Your task to perform on an android device: turn off data saver in the chrome app Image 0: 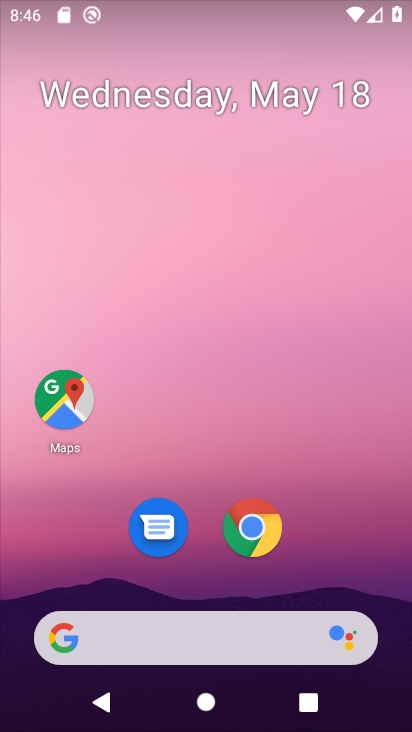
Step 0: drag from (311, 568) to (277, 164)
Your task to perform on an android device: turn off data saver in the chrome app Image 1: 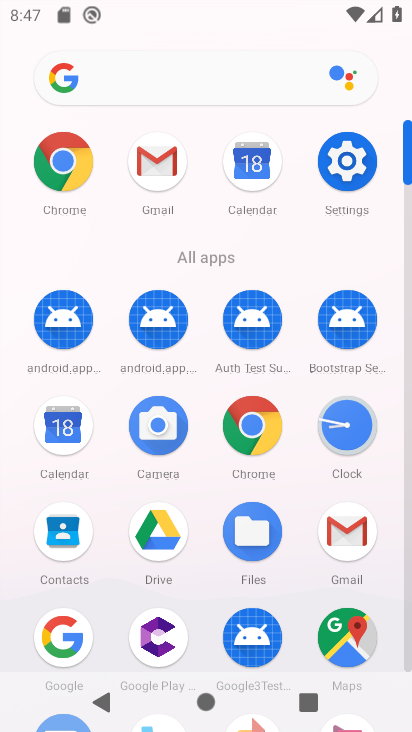
Step 1: click (55, 213)
Your task to perform on an android device: turn off data saver in the chrome app Image 2: 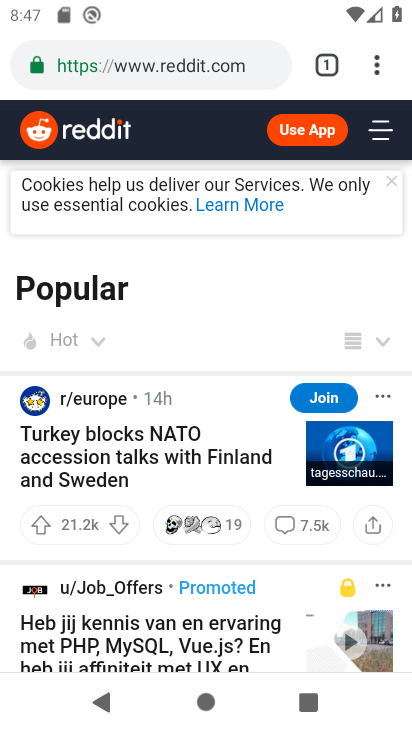
Step 2: click (374, 70)
Your task to perform on an android device: turn off data saver in the chrome app Image 3: 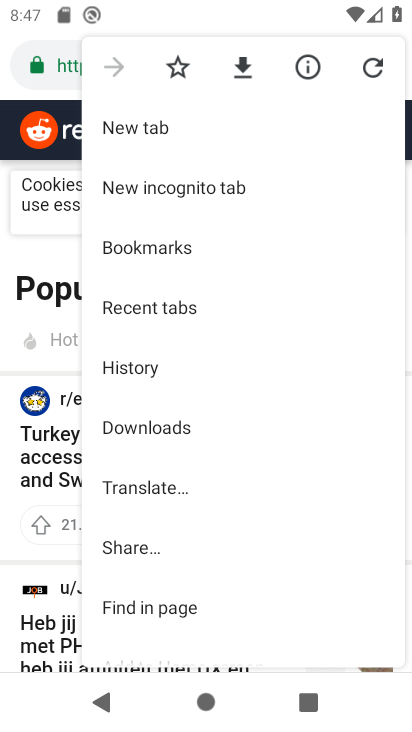
Step 3: drag from (162, 551) to (162, 436)
Your task to perform on an android device: turn off data saver in the chrome app Image 4: 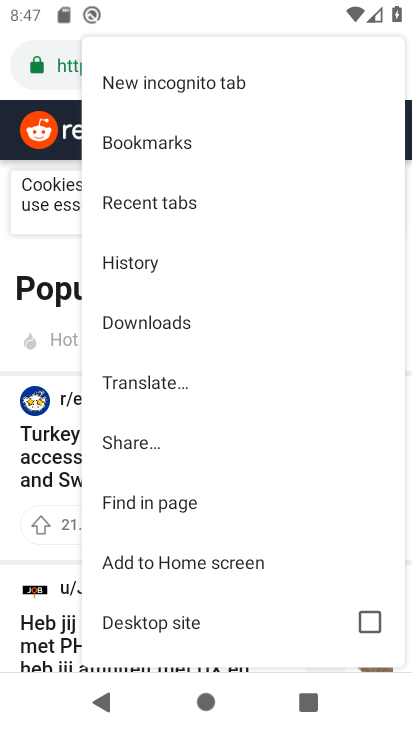
Step 4: drag from (167, 589) to (167, 479)
Your task to perform on an android device: turn off data saver in the chrome app Image 5: 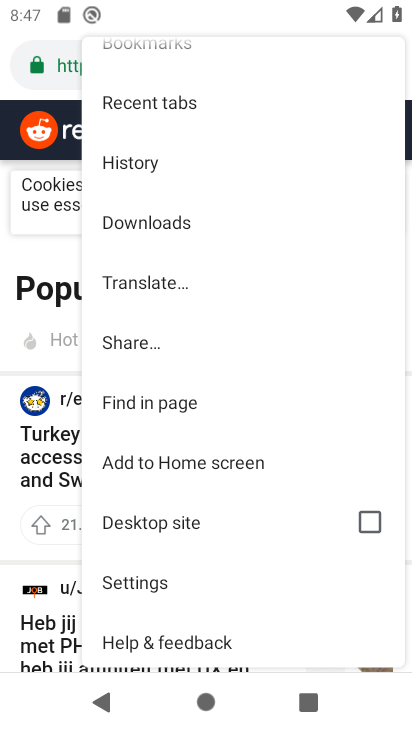
Step 5: click (154, 580)
Your task to perform on an android device: turn off data saver in the chrome app Image 6: 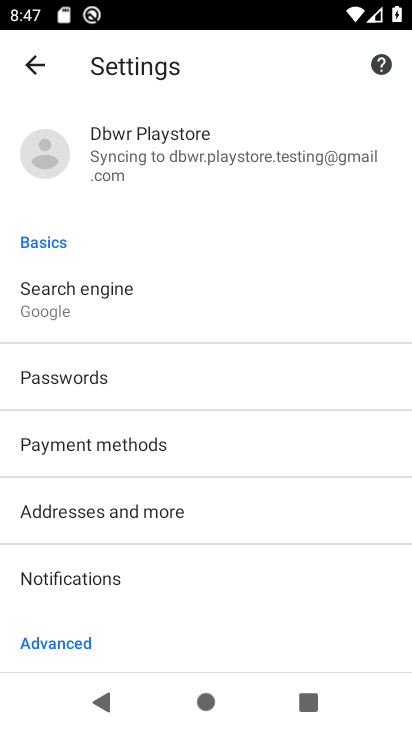
Step 6: drag from (157, 659) to (201, 280)
Your task to perform on an android device: turn off data saver in the chrome app Image 7: 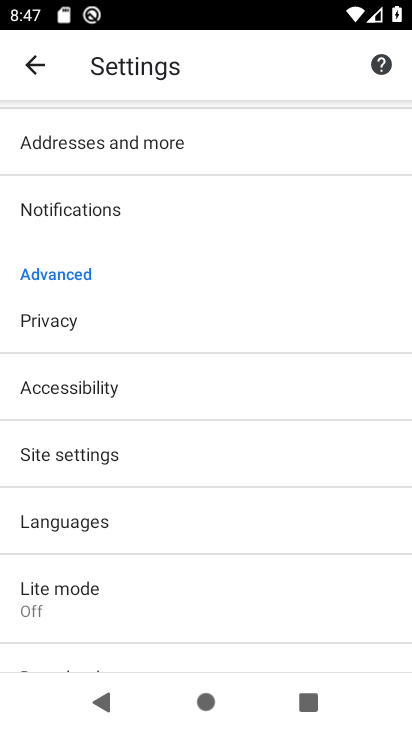
Step 7: click (68, 610)
Your task to perform on an android device: turn off data saver in the chrome app Image 8: 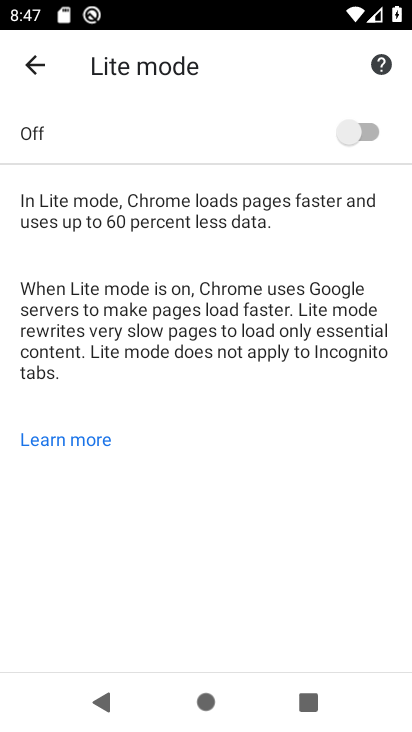
Step 8: task complete